Your task to perform on an android device: change notification settings in the gmail app Image 0: 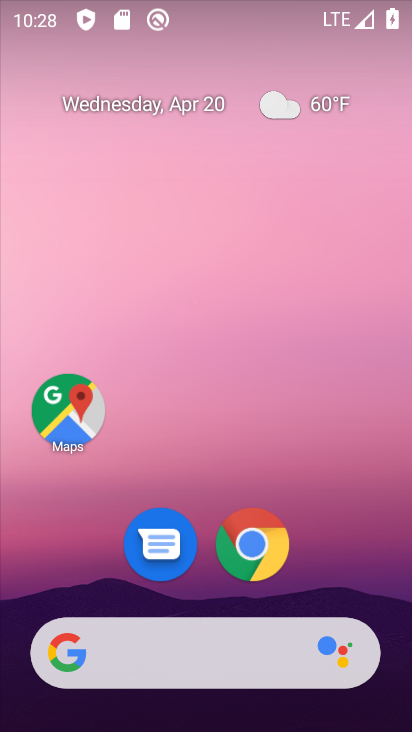
Step 0: drag from (366, 583) to (319, 378)
Your task to perform on an android device: change notification settings in the gmail app Image 1: 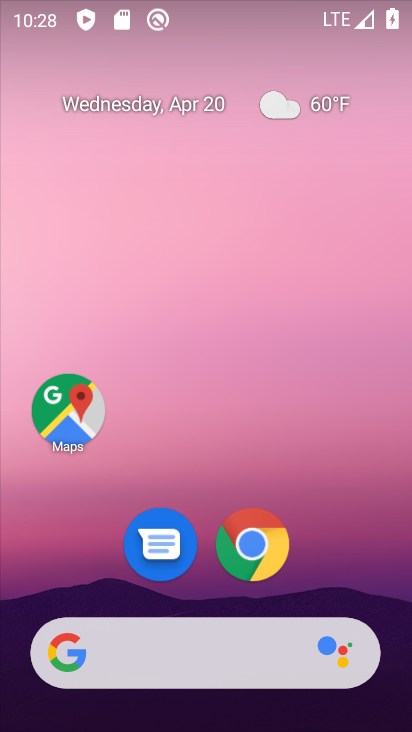
Step 1: drag from (349, 535) to (305, 281)
Your task to perform on an android device: change notification settings in the gmail app Image 2: 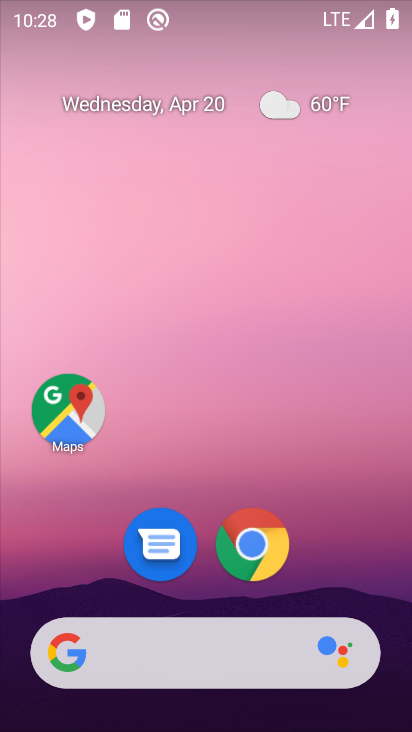
Step 2: drag from (402, 582) to (305, 240)
Your task to perform on an android device: change notification settings in the gmail app Image 3: 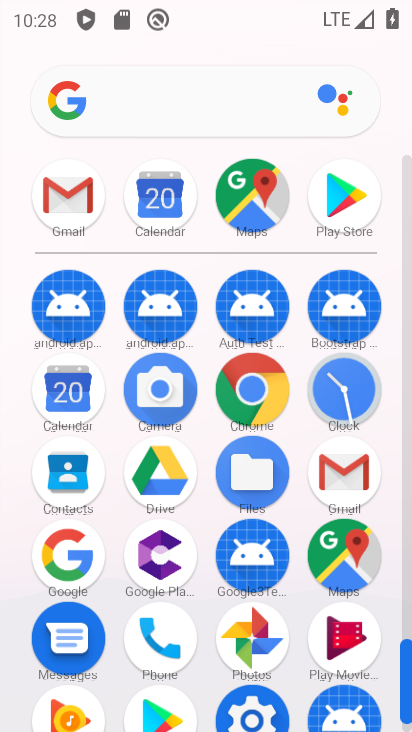
Step 3: click (68, 191)
Your task to perform on an android device: change notification settings in the gmail app Image 4: 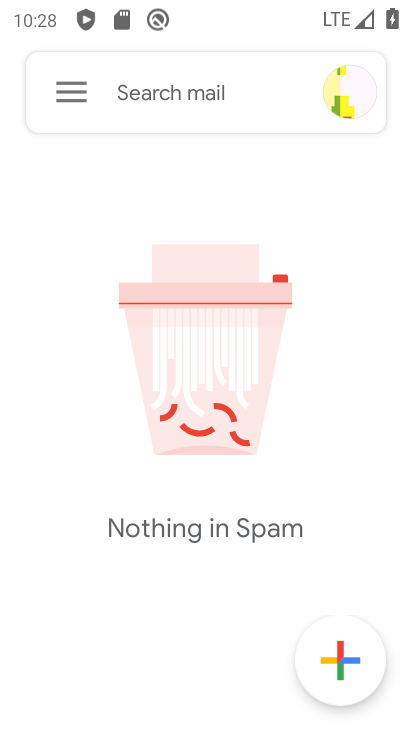
Step 4: click (72, 95)
Your task to perform on an android device: change notification settings in the gmail app Image 5: 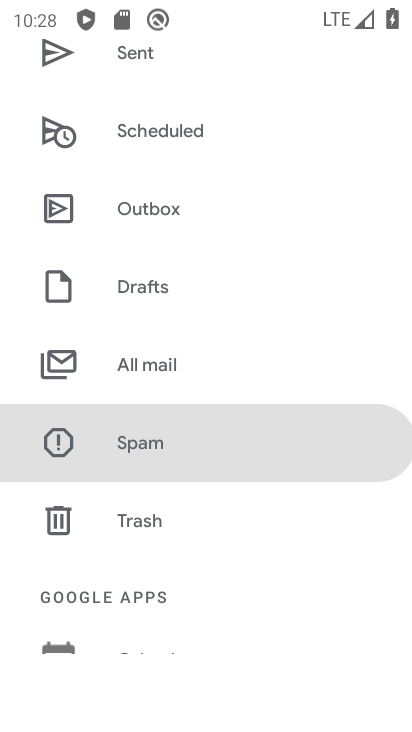
Step 5: drag from (277, 584) to (251, 128)
Your task to perform on an android device: change notification settings in the gmail app Image 6: 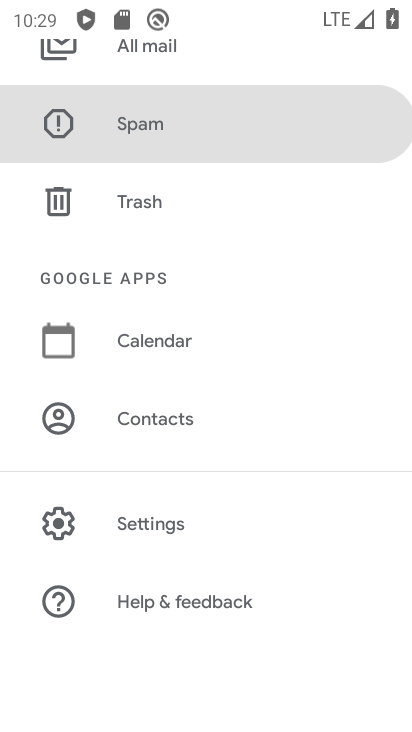
Step 6: click (251, 540)
Your task to perform on an android device: change notification settings in the gmail app Image 7: 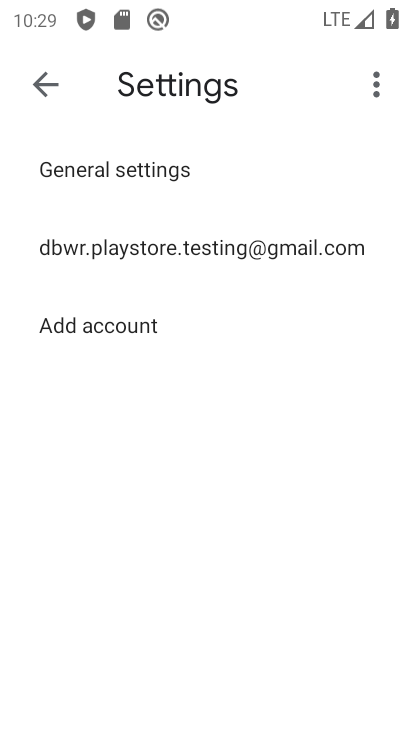
Step 7: click (277, 248)
Your task to perform on an android device: change notification settings in the gmail app Image 8: 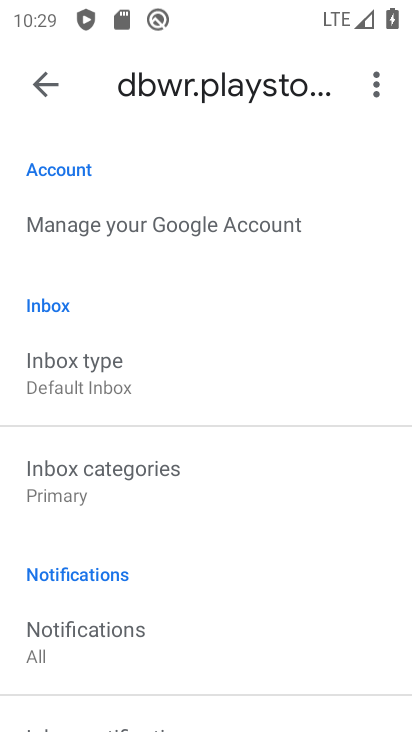
Step 8: drag from (276, 642) to (205, 212)
Your task to perform on an android device: change notification settings in the gmail app Image 9: 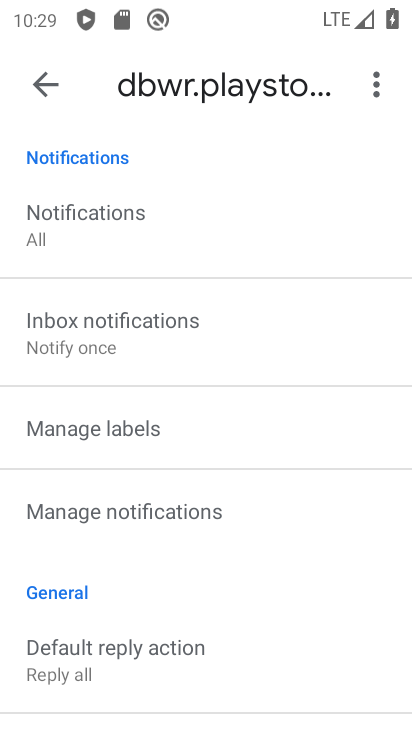
Step 9: click (223, 523)
Your task to perform on an android device: change notification settings in the gmail app Image 10: 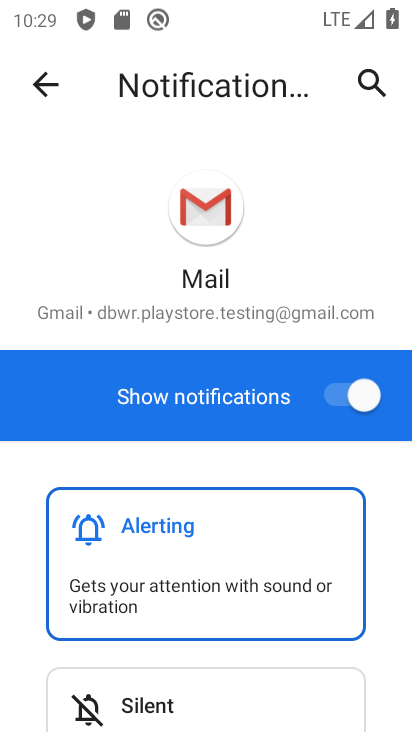
Step 10: drag from (389, 665) to (323, 310)
Your task to perform on an android device: change notification settings in the gmail app Image 11: 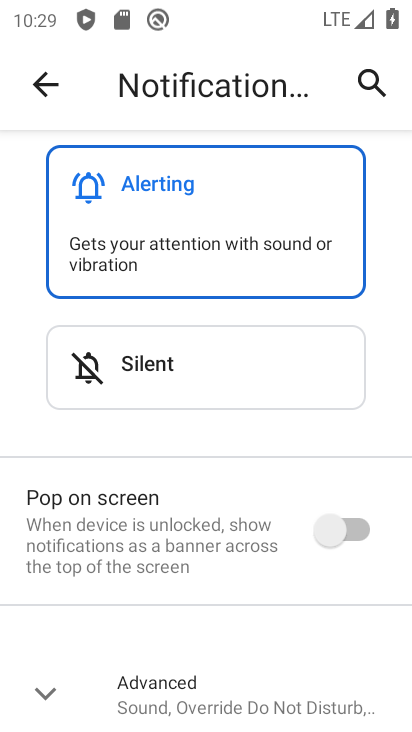
Step 11: click (318, 359)
Your task to perform on an android device: change notification settings in the gmail app Image 12: 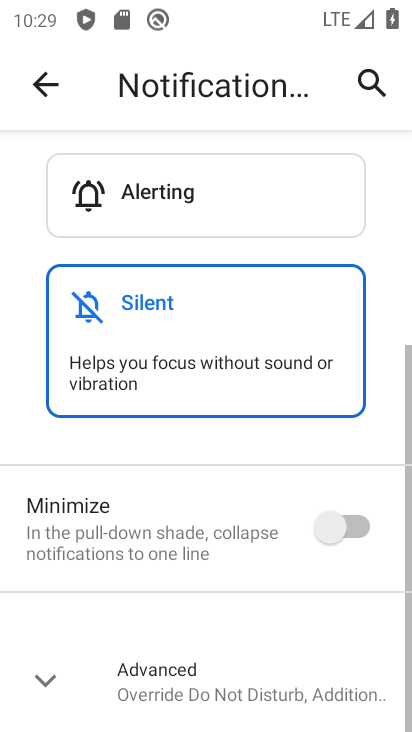
Step 12: click (358, 533)
Your task to perform on an android device: change notification settings in the gmail app Image 13: 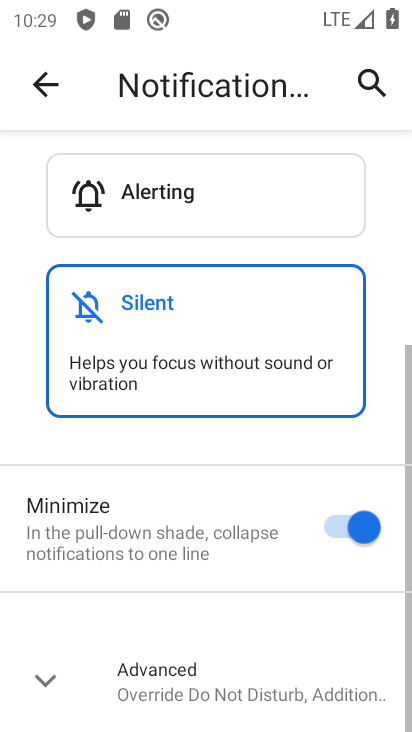
Step 13: task complete